Your task to perform on an android device: Open internet settings Image 0: 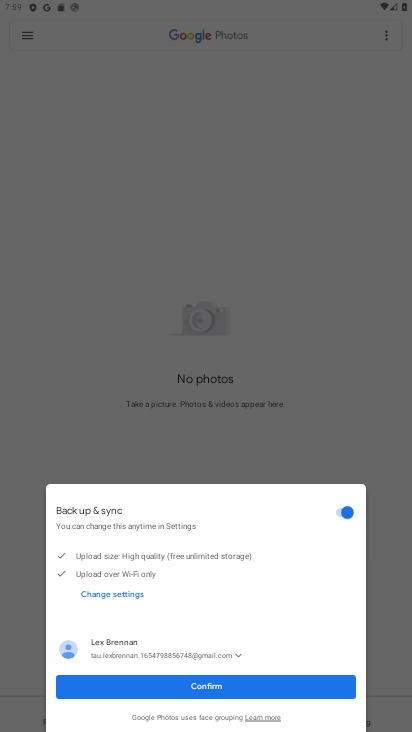
Step 0: press home button
Your task to perform on an android device: Open internet settings Image 1: 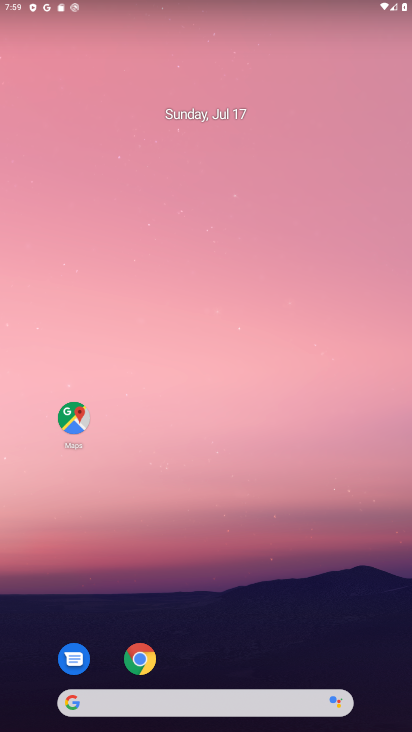
Step 1: drag from (290, 616) to (160, 11)
Your task to perform on an android device: Open internet settings Image 2: 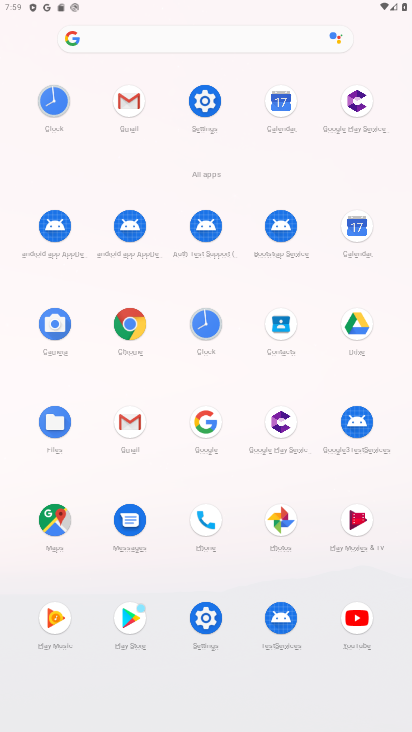
Step 2: click (196, 623)
Your task to perform on an android device: Open internet settings Image 3: 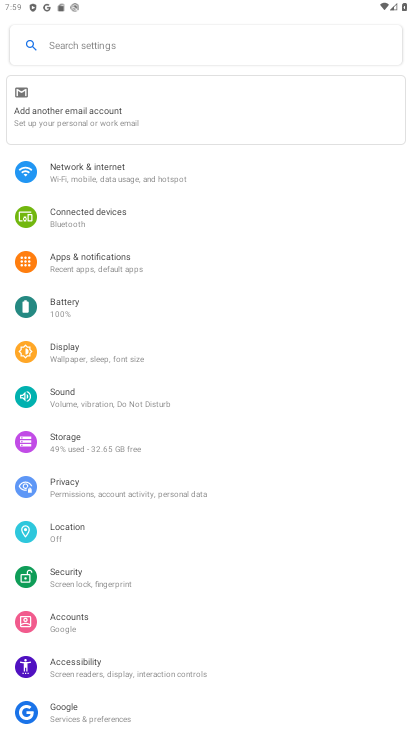
Step 3: click (74, 168)
Your task to perform on an android device: Open internet settings Image 4: 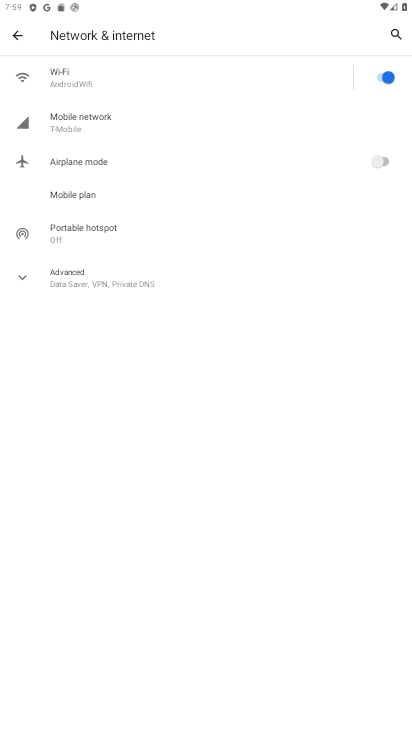
Step 4: task complete